Your task to perform on an android device: add a contact Image 0: 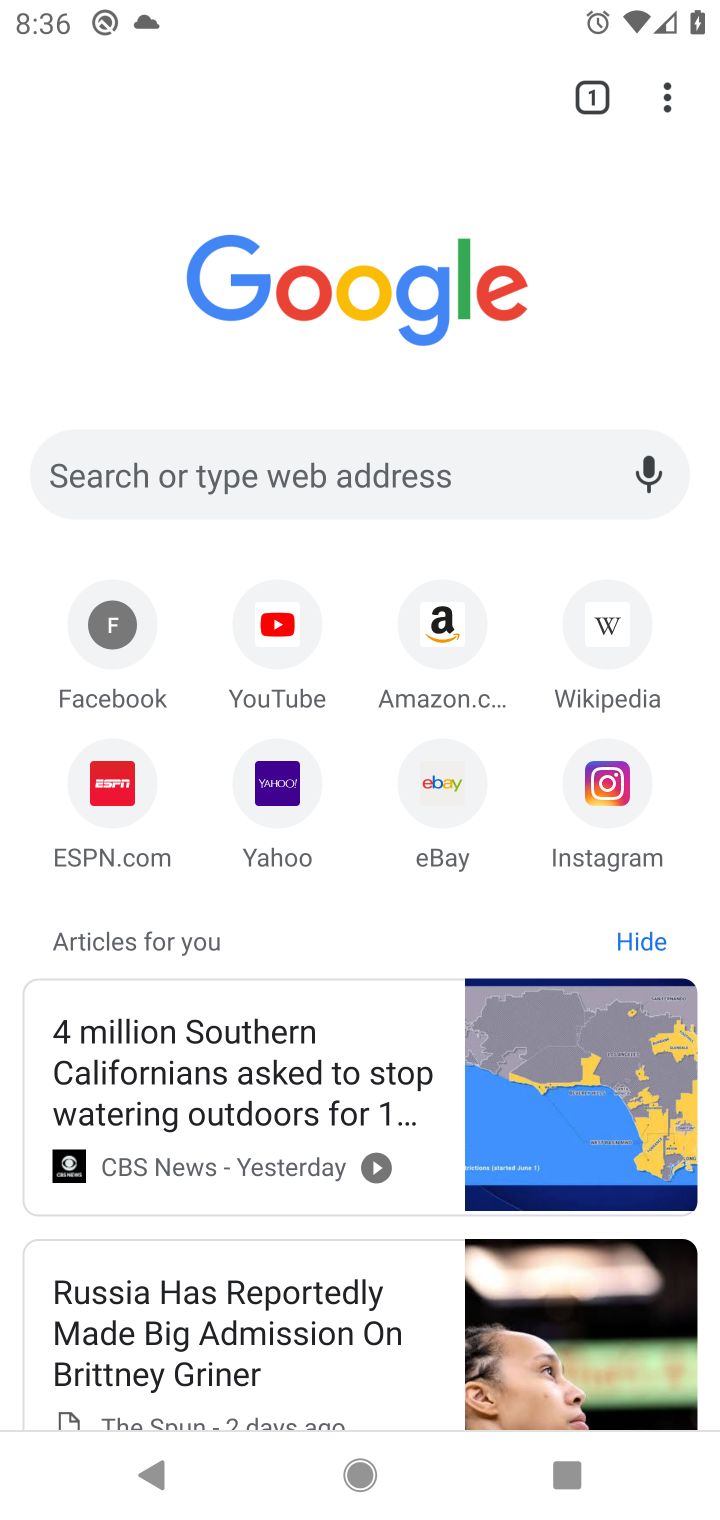
Step 0: press home button
Your task to perform on an android device: add a contact Image 1: 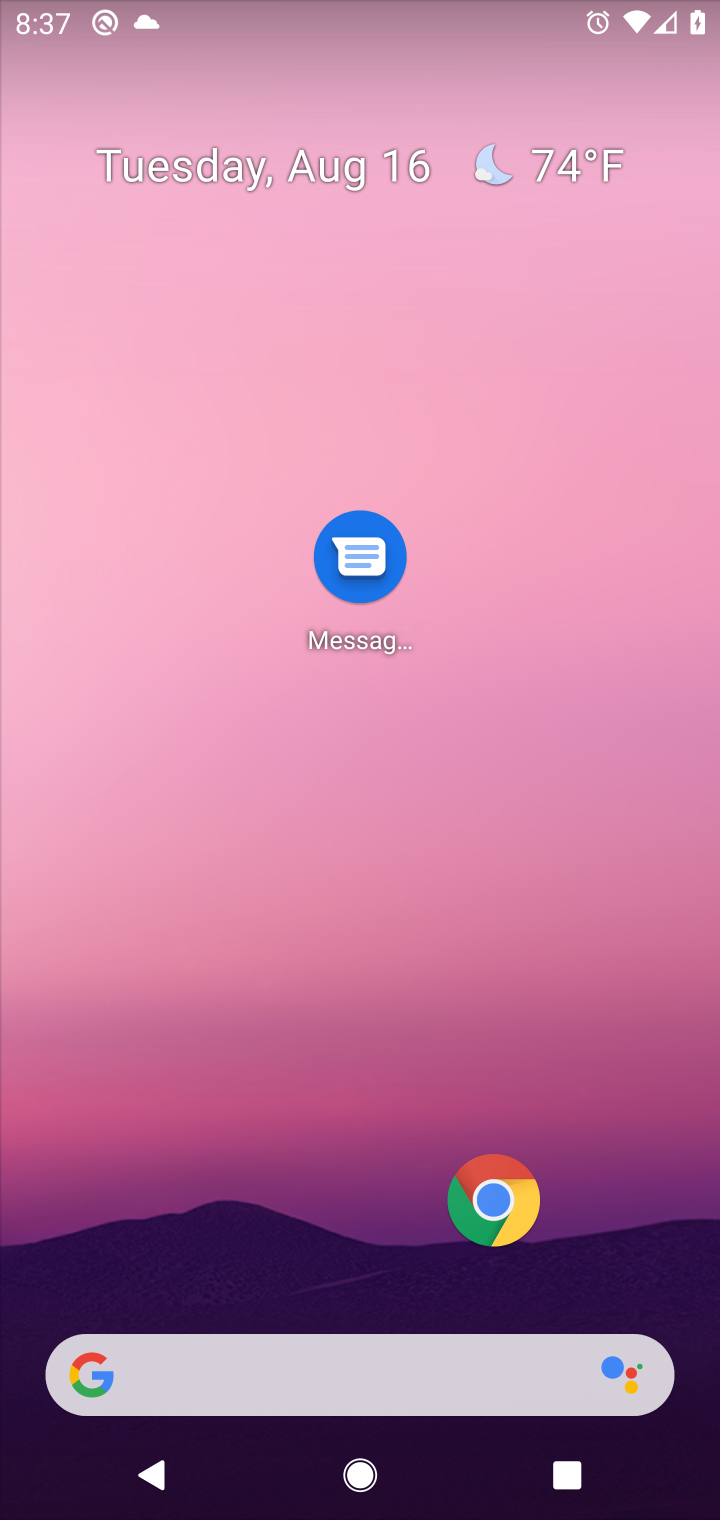
Step 1: task complete